Your task to perform on an android device: Open Youtube and go to the subscriptions tab Image 0: 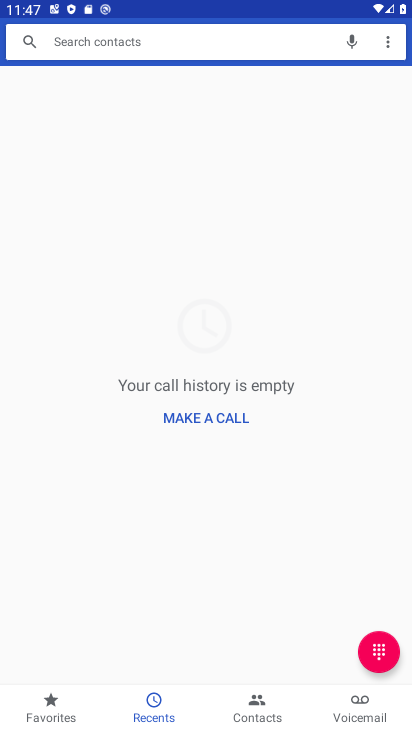
Step 0: task impossible